Your task to perform on an android device: Show me popular videos on Youtube Image 0: 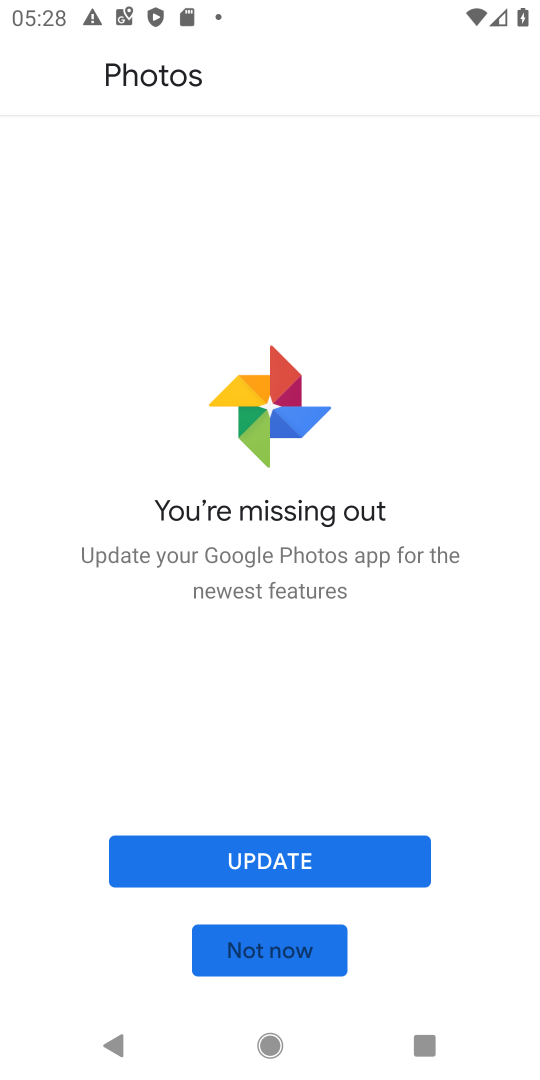
Step 0: press home button
Your task to perform on an android device: Show me popular videos on Youtube Image 1: 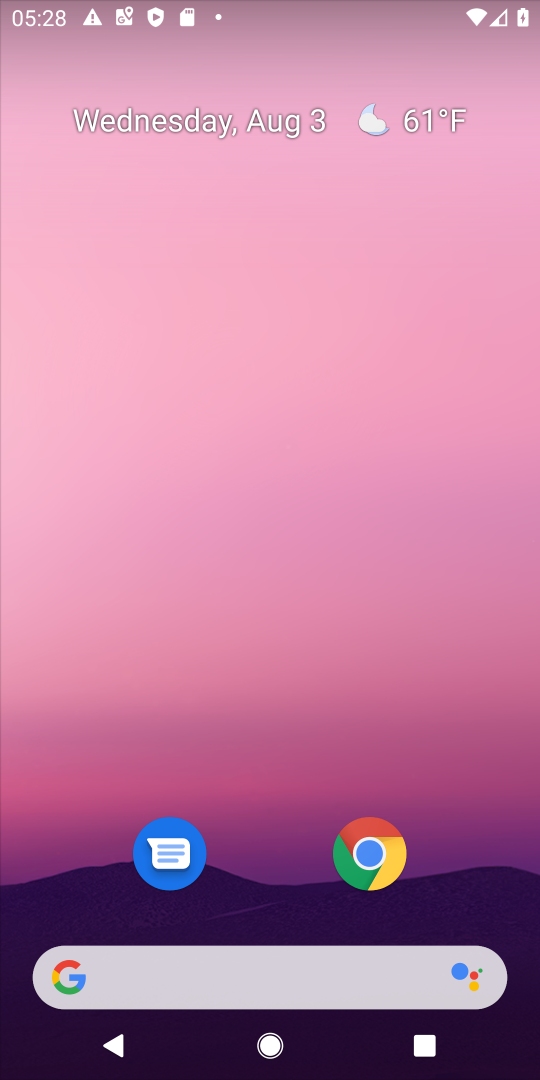
Step 1: drag from (278, 914) to (276, 130)
Your task to perform on an android device: Show me popular videos on Youtube Image 2: 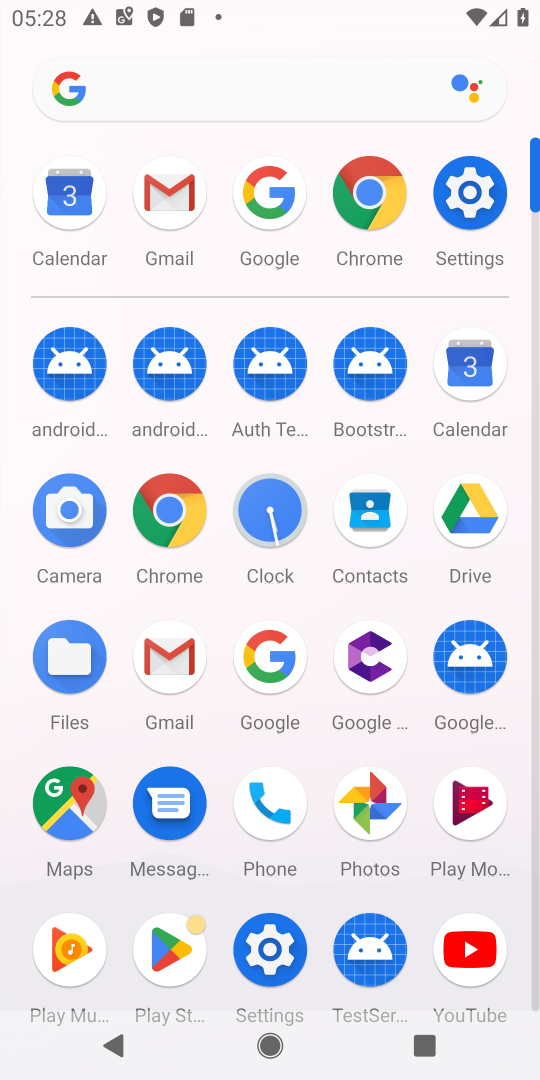
Step 2: click (459, 950)
Your task to perform on an android device: Show me popular videos on Youtube Image 3: 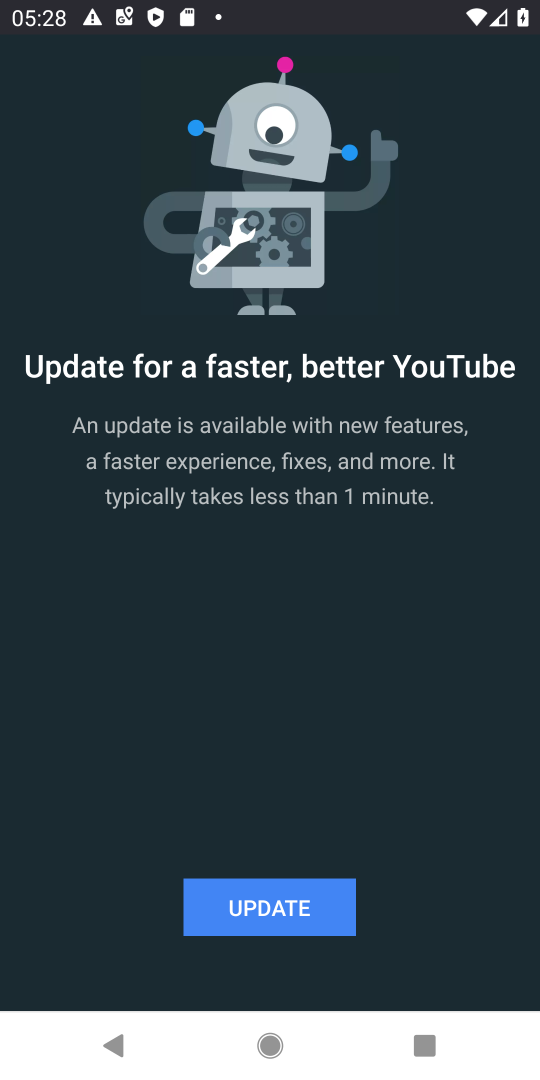
Step 3: task complete